Your task to perform on an android device: Open network settings Image 0: 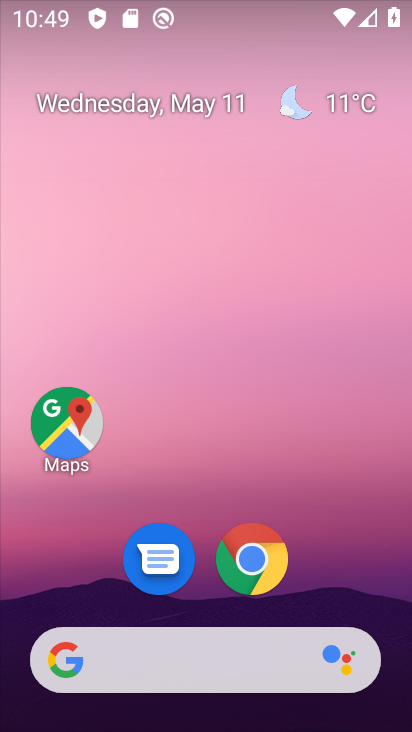
Step 0: drag from (210, 647) to (46, 82)
Your task to perform on an android device: Open network settings Image 1: 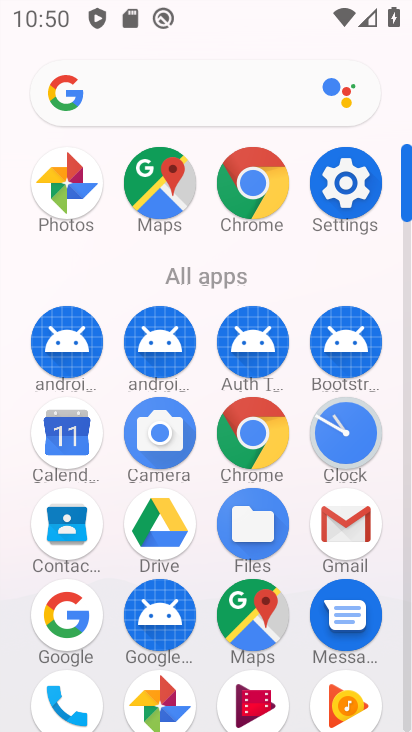
Step 1: click (354, 197)
Your task to perform on an android device: Open network settings Image 2: 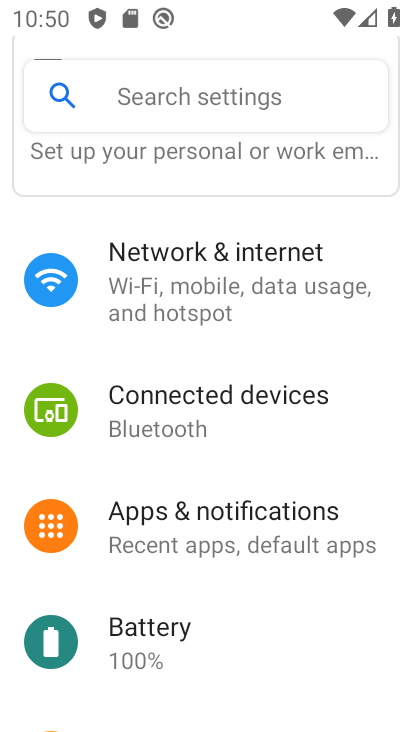
Step 2: click (217, 296)
Your task to perform on an android device: Open network settings Image 3: 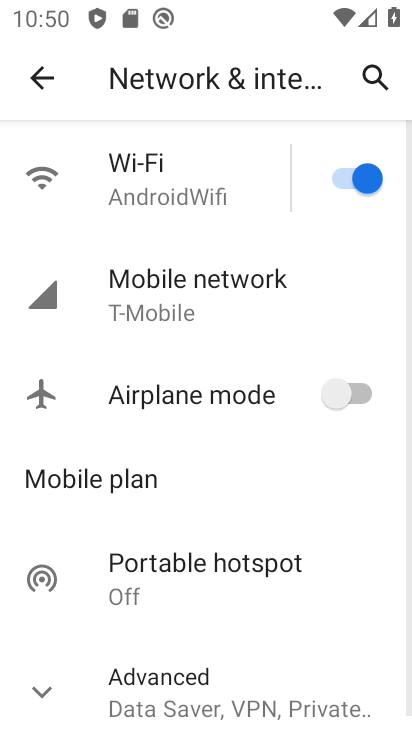
Step 3: task complete